Your task to perform on an android device: refresh tabs in the chrome app Image 0: 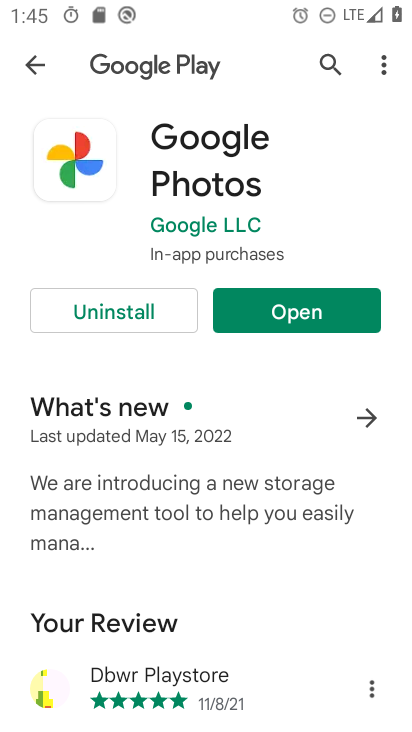
Step 0: press home button
Your task to perform on an android device: refresh tabs in the chrome app Image 1: 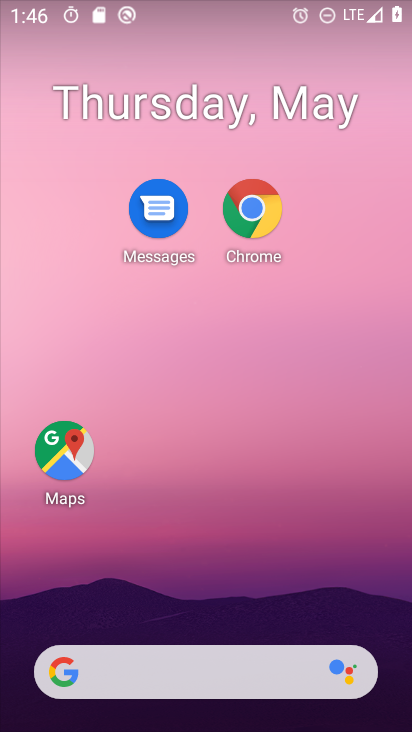
Step 1: click (259, 254)
Your task to perform on an android device: refresh tabs in the chrome app Image 2: 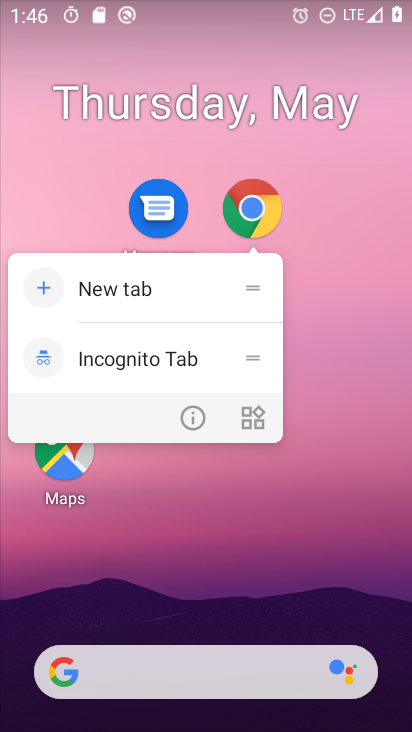
Step 2: click (259, 228)
Your task to perform on an android device: refresh tabs in the chrome app Image 3: 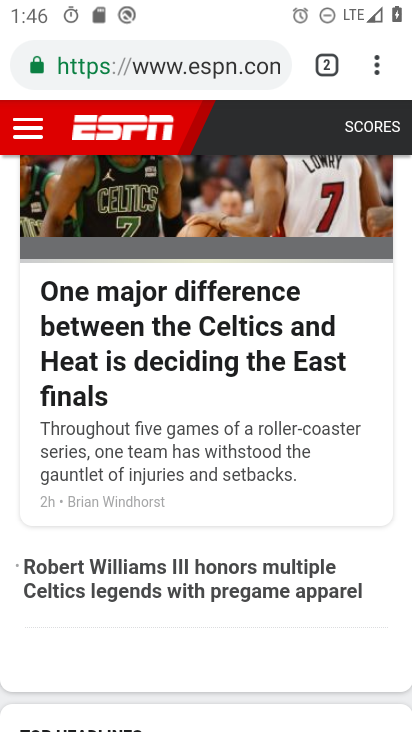
Step 3: click (379, 69)
Your task to perform on an android device: refresh tabs in the chrome app Image 4: 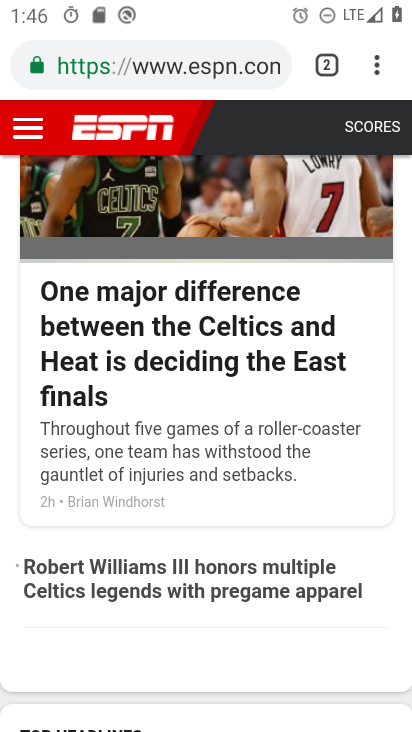
Step 4: click (377, 69)
Your task to perform on an android device: refresh tabs in the chrome app Image 5: 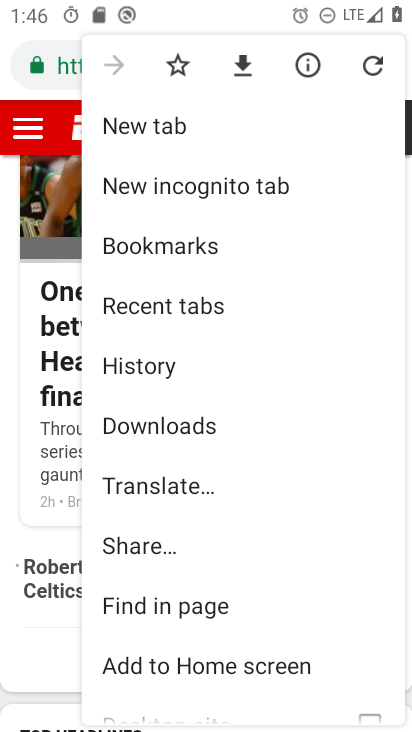
Step 5: click (373, 68)
Your task to perform on an android device: refresh tabs in the chrome app Image 6: 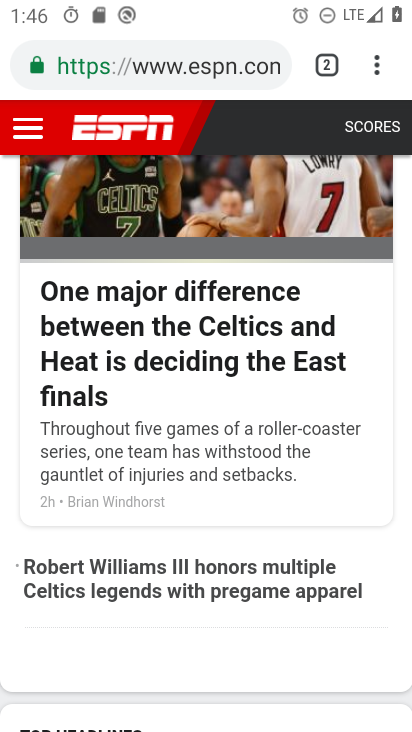
Step 6: task complete